Your task to perform on an android device: see creations saved in the google photos Image 0: 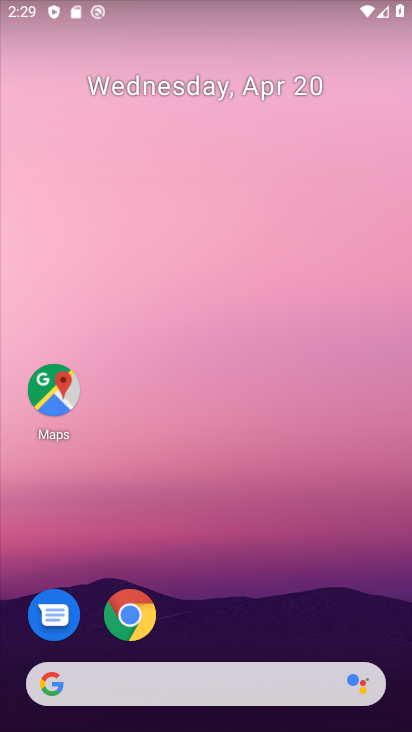
Step 0: drag from (170, 638) to (315, 105)
Your task to perform on an android device: see creations saved in the google photos Image 1: 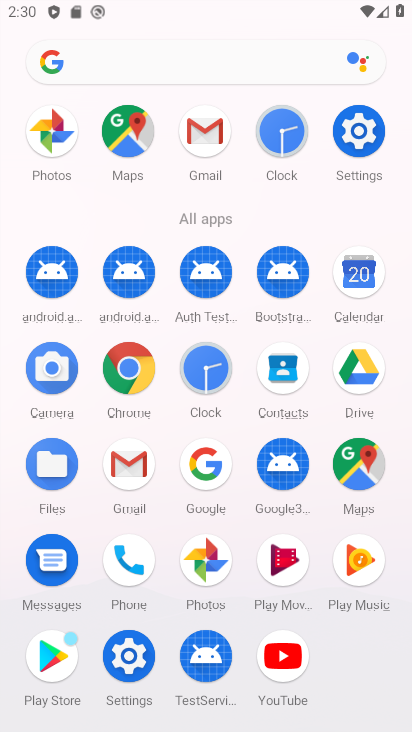
Step 1: click (201, 548)
Your task to perform on an android device: see creations saved in the google photos Image 2: 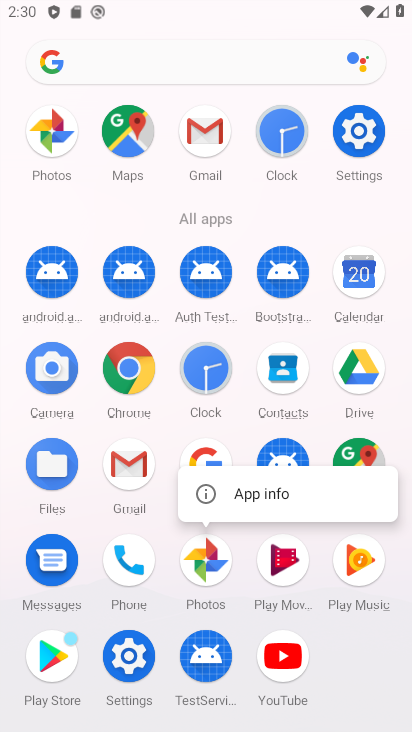
Step 2: click (263, 494)
Your task to perform on an android device: see creations saved in the google photos Image 3: 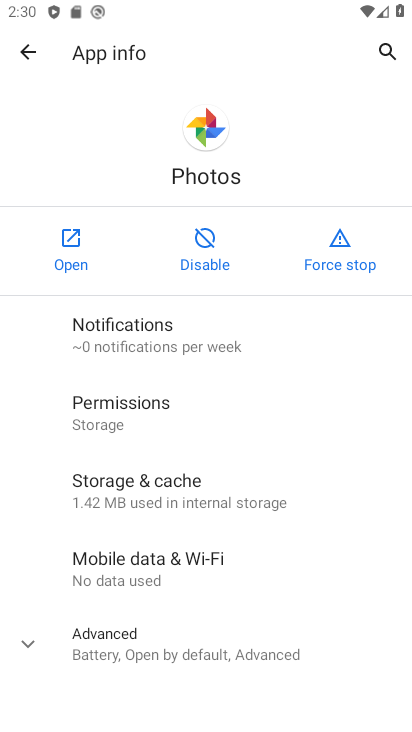
Step 3: click (79, 243)
Your task to perform on an android device: see creations saved in the google photos Image 4: 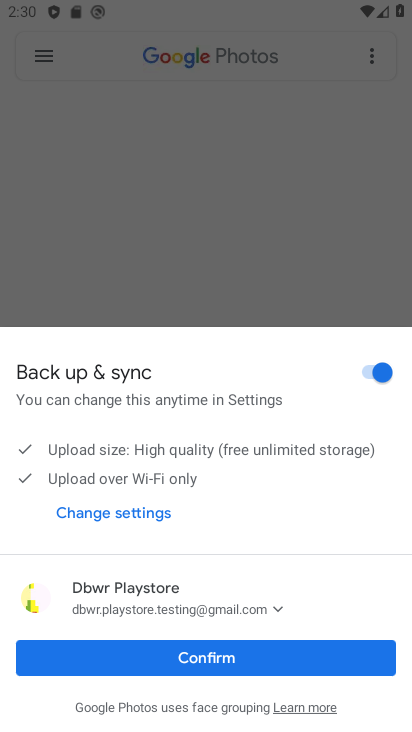
Step 4: click (258, 664)
Your task to perform on an android device: see creations saved in the google photos Image 5: 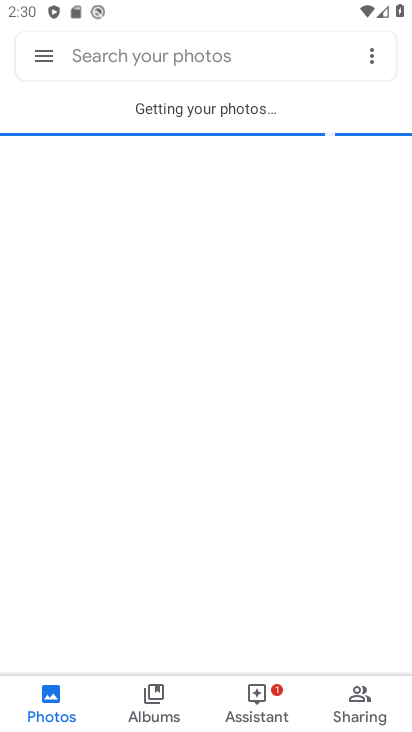
Step 5: click (167, 58)
Your task to perform on an android device: see creations saved in the google photos Image 6: 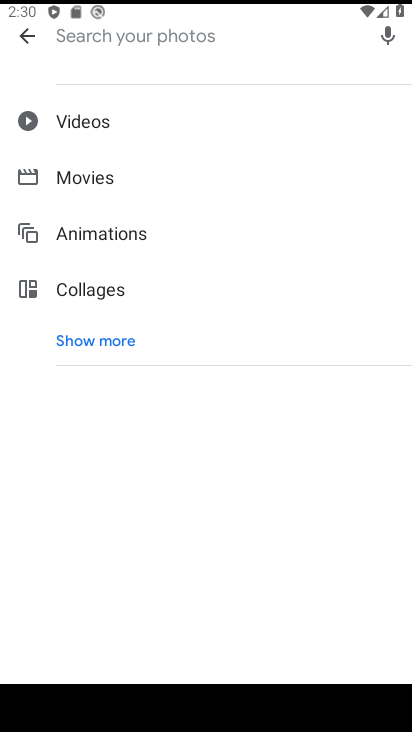
Step 6: click (99, 350)
Your task to perform on an android device: see creations saved in the google photos Image 7: 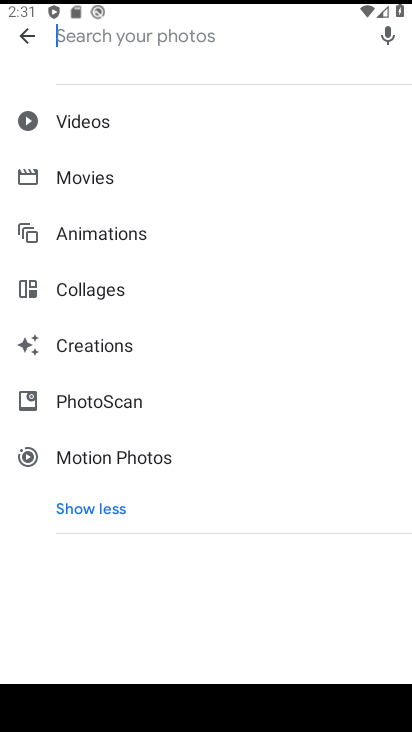
Step 7: click (93, 342)
Your task to perform on an android device: see creations saved in the google photos Image 8: 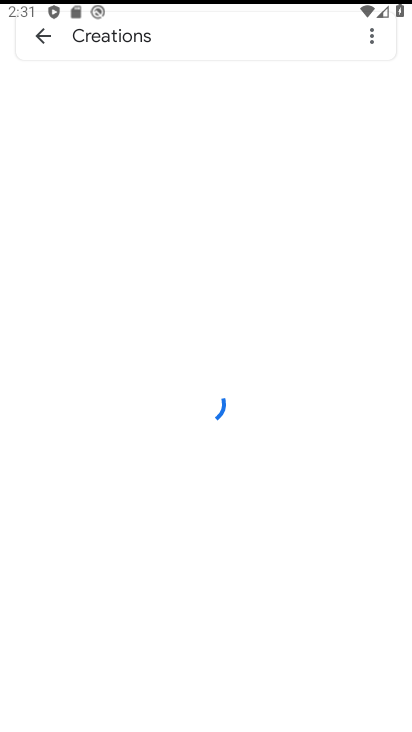
Step 8: drag from (259, 416) to (343, 75)
Your task to perform on an android device: see creations saved in the google photos Image 9: 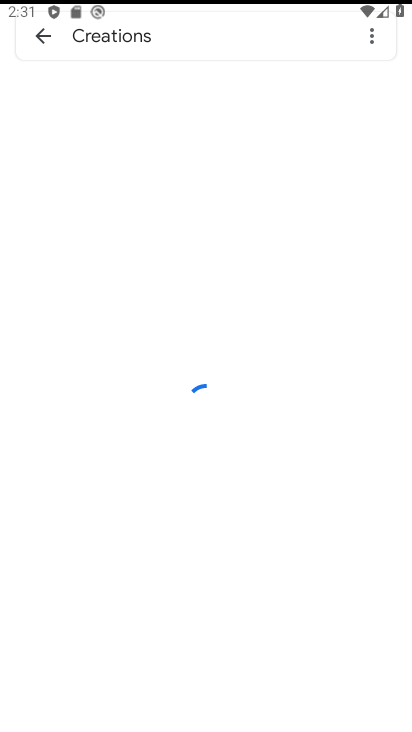
Step 9: drag from (157, 520) to (216, 322)
Your task to perform on an android device: see creations saved in the google photos Image 10: 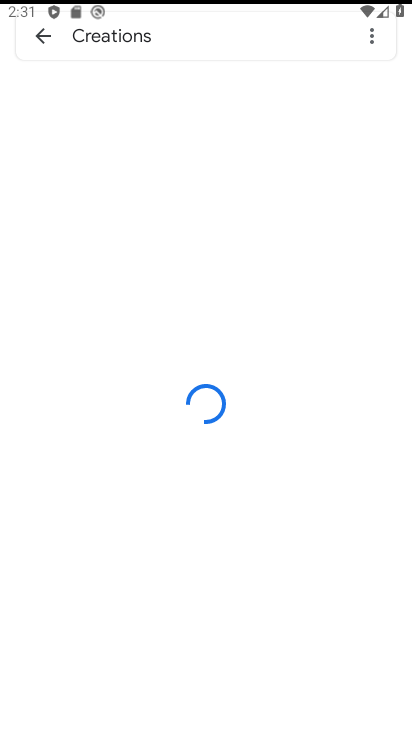
Step 10: drag from (188, 200) to (240, 591)
Your task to perform on an android device: see creations saved in the google photos Image 11: 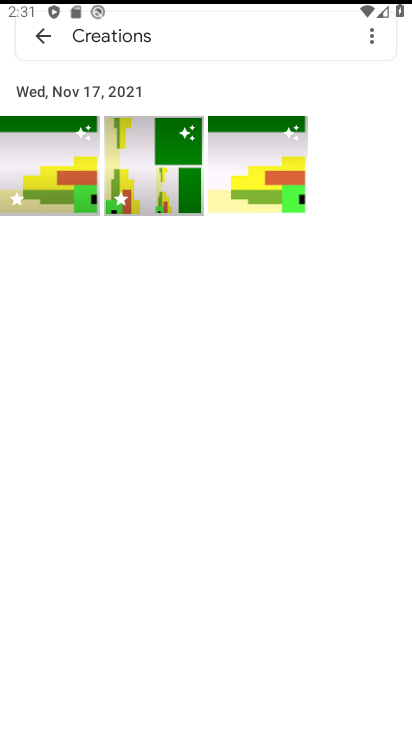
Step 11: drag from (92, 526) to (259, 237)
Your task to perform on an android device: see creations saved in the google photos Image 12: 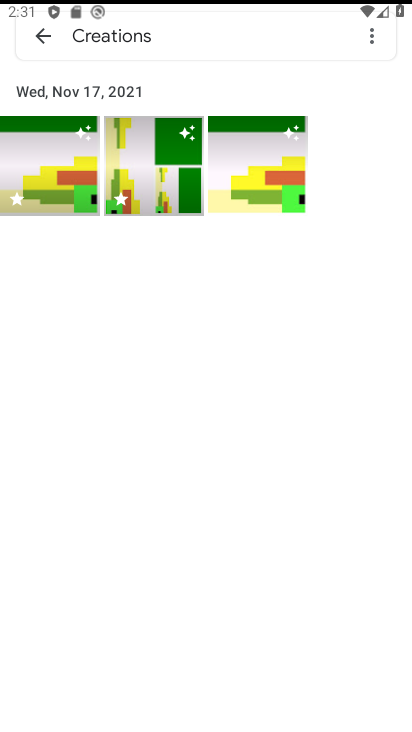
Step 12: click (242, 161)
Your task to perform on an android device: see creations saved in the google photos Image 13: 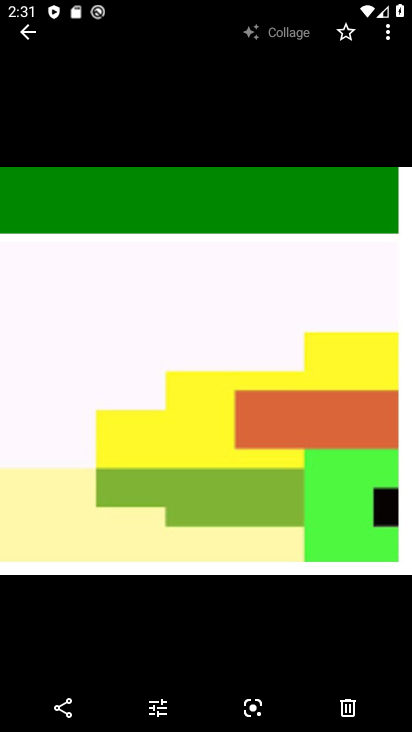
Step 13: drag from (181, 374) to (9, 401)
Your task to perform on an android device: see creations saved in the google photos Image 14: 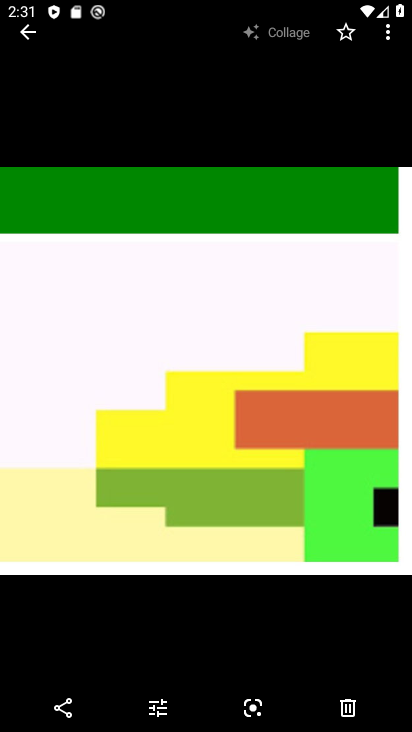
Step 14: drag from (195, 589) to (356, 147)
Your task to perform on an android device: see creations saved in the google photos Image 15: 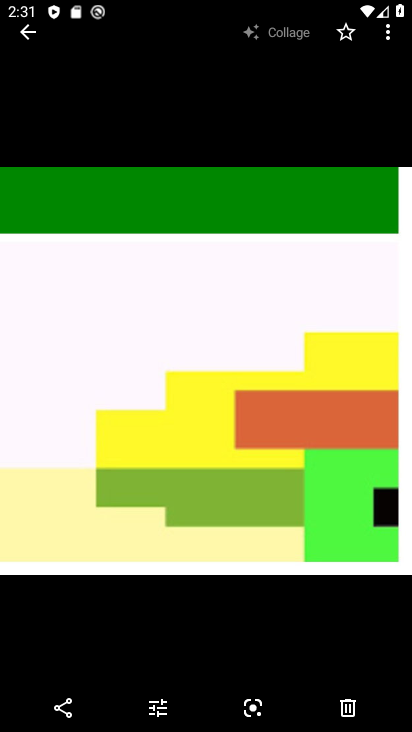
Step 15: drag from (197, 521) to (244, 150)
Your task to perform on an android device: see creations saved in the google photos Image 16: 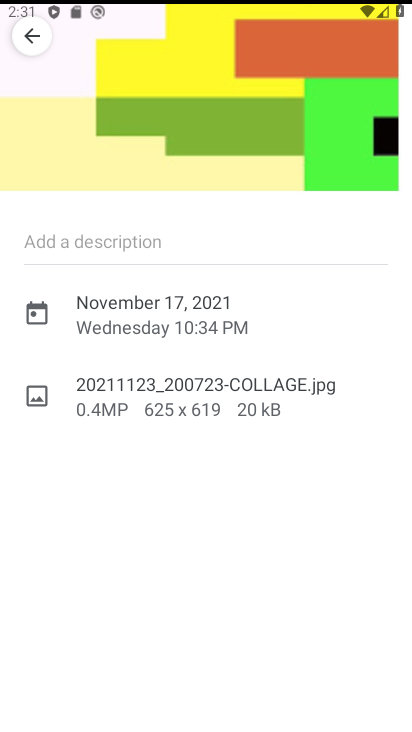
Step 16: drag from (172, 544) to (272, 203)
Your task to perform on an android device: see creations saved in the google photos Image 17: 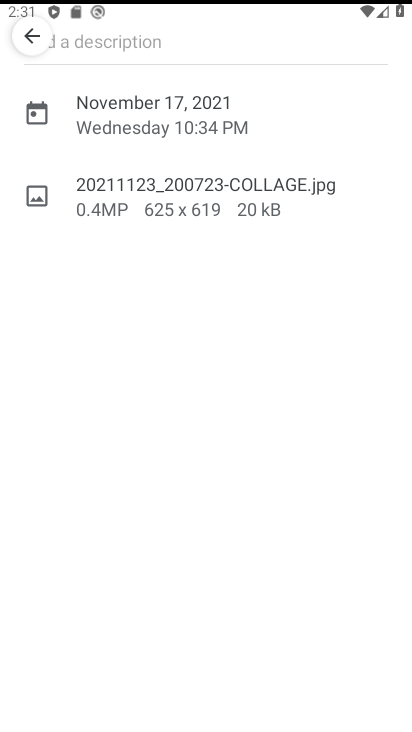
Step 17: drag from (153, 144) to (194, 567)
Your task to perform on an android device: see creations saved in the google photos Image 18: 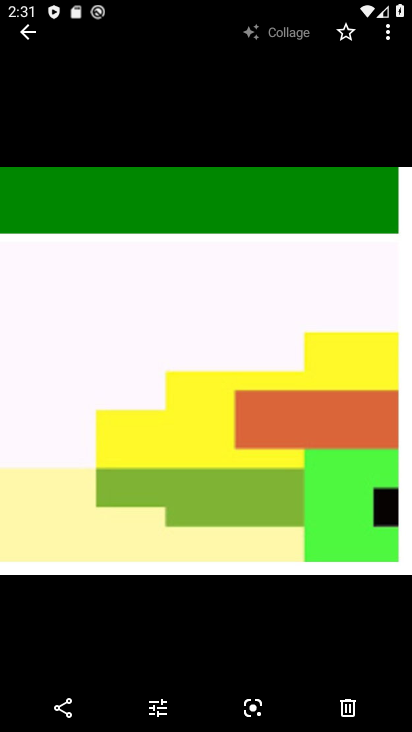
Step 18: click (29, 36)
Your task to perform on an android device: see creations saved in the google photos Image 19: 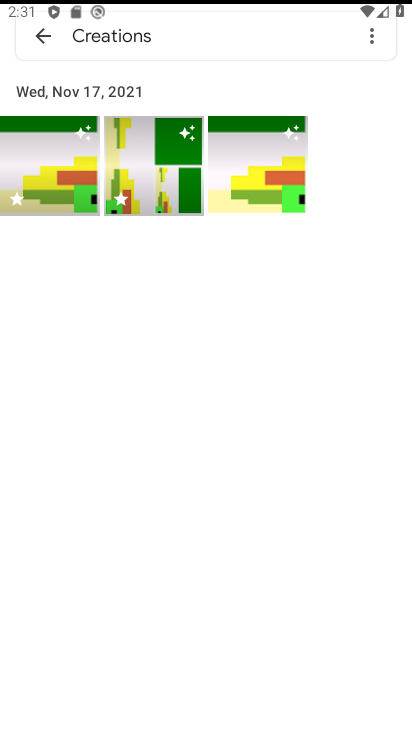
Step 19: task complete